Your task to perform on an android device: Check the news Image 0: 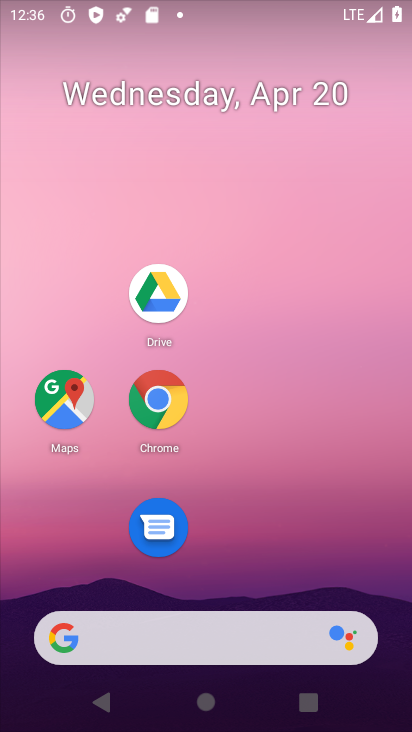
Step 0: drag from (200, 643) to (243, 161)
Your task to perform on an android device: Check the news Image 1: 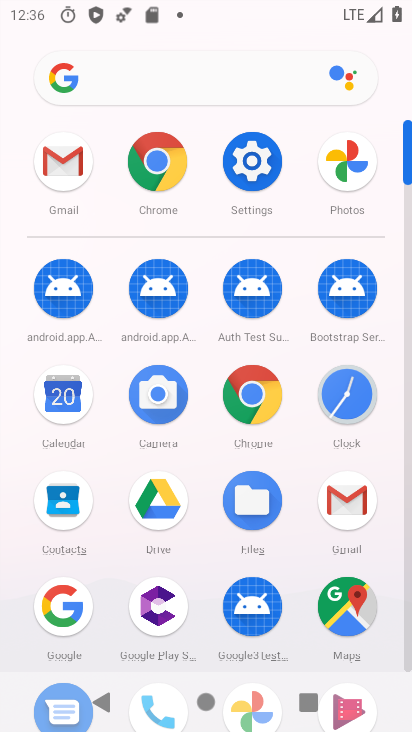
Step 1: click (153, 69)
Your task to perform on an android device: Check the news Image 2: 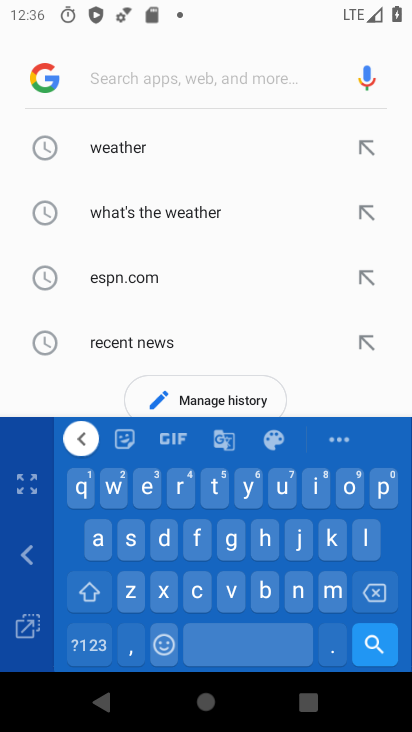
Step 2: click (14, 470)
Your task to perform on an android device: Check the news Image 3: 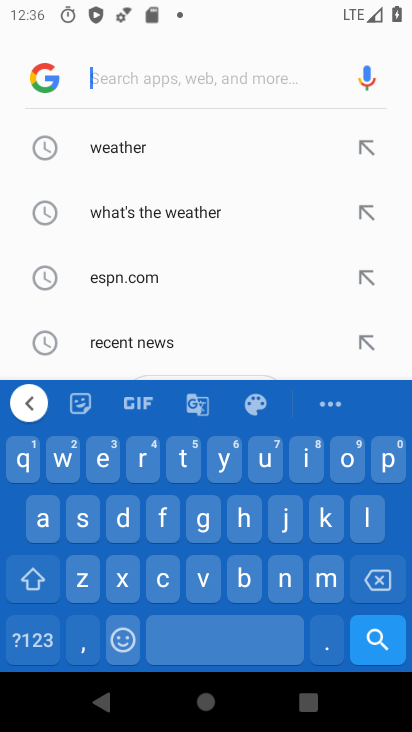
Step 3: click (295, 584)
Your task to perform on an android device: Check the news Image 4: 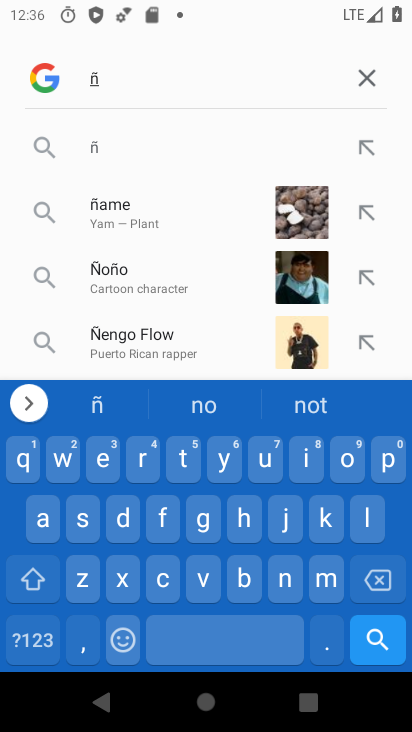
Step 4: click (394, 575)
Your task to perform on an android device: Check the news Image 5: 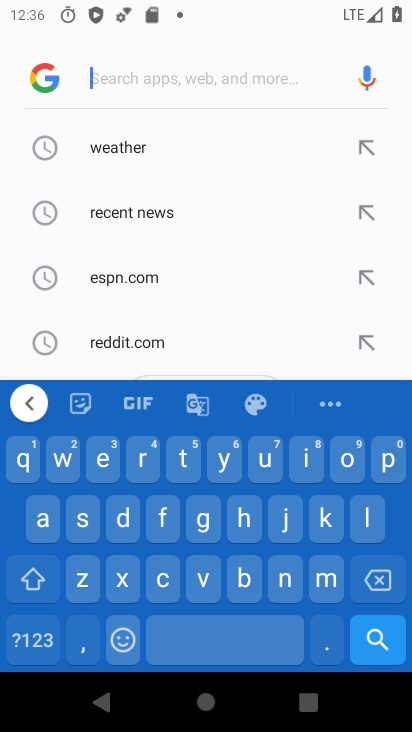
Step 5: click (275, 579)
Your task to perform on an android device: Check the news Image 6: 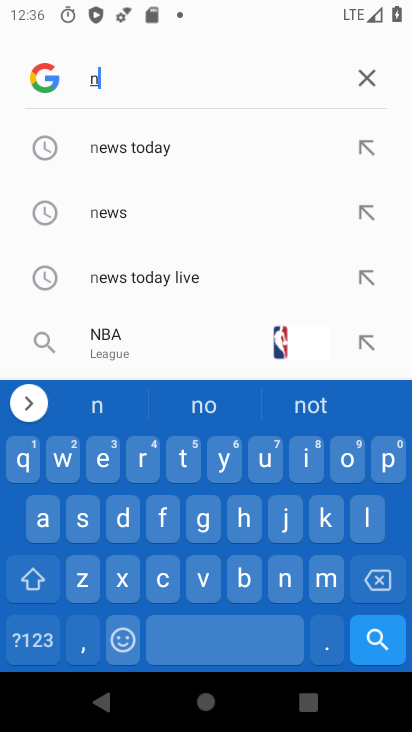
Step 6: click (121, 207)
Your task to perform on an android device: Check the news Image 7: 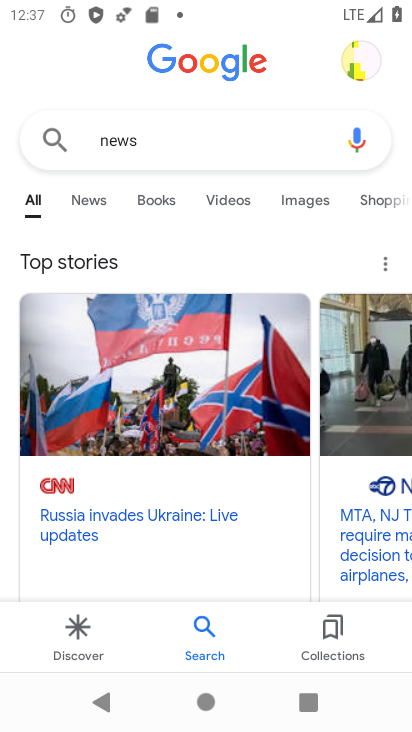
Step 7: task complete